Your task to perform on an android device: visit the assistant section in the google photos Image 0: 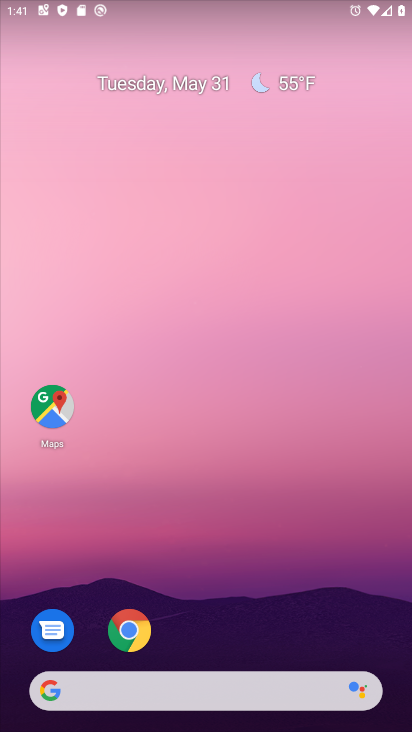
Step 0: drag from (210, 329) to (233, 163)
Your task to perform on an android device: visit the assistant section in the google photos Image 1: 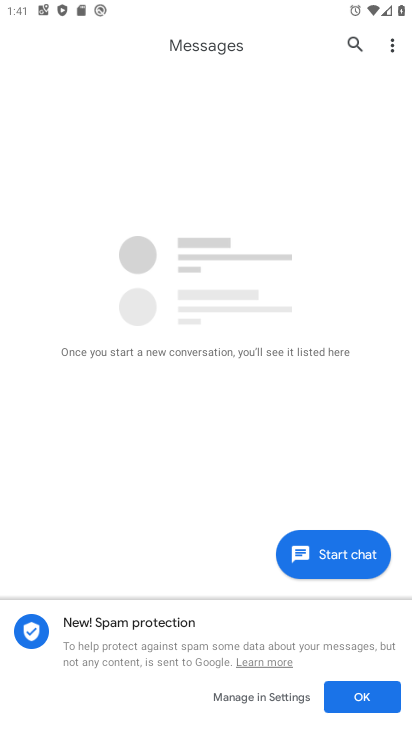
Step 1: press home button
Your task to perform on an android device: visit the assistant section in the google photos Image 2: 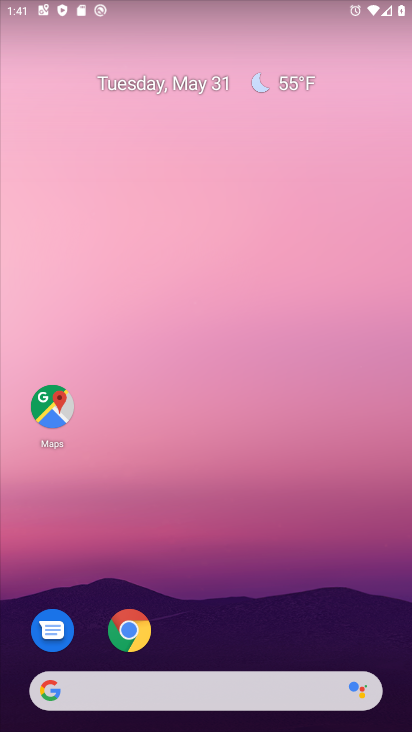
Step 2: drag from (189, 671) to (250, 234)
Your task to perform on an android device: visit the assistant section in the google photos Image 3: 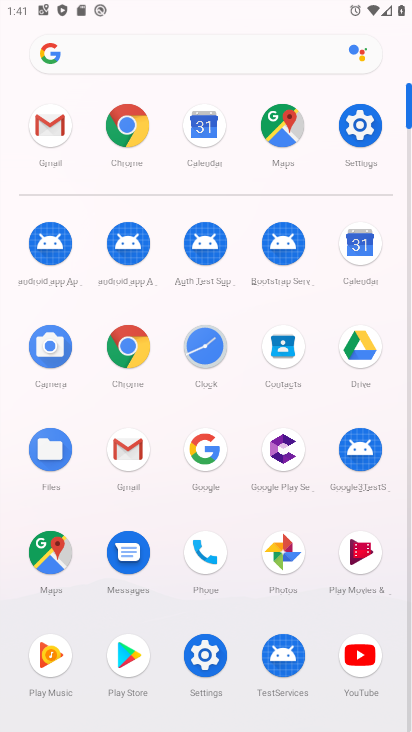
Step 3: click (287, 553)
Your task to perform on an android device: visit the assistant section in the google photos Image 4: 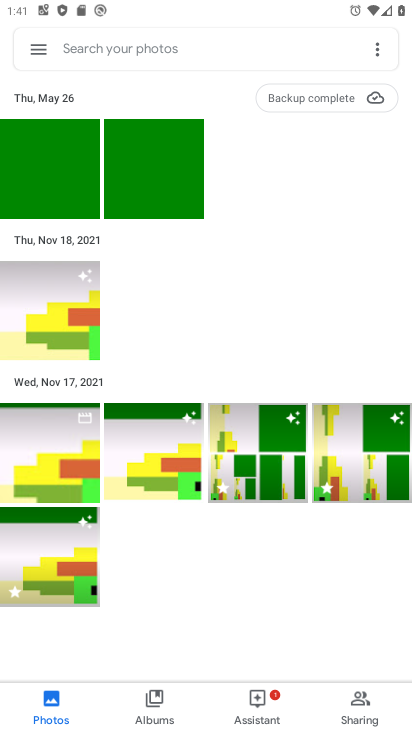
Step 4: click (40, 45)
Your task to perform on an android device: visit the assistant section in the google photos Image 5: 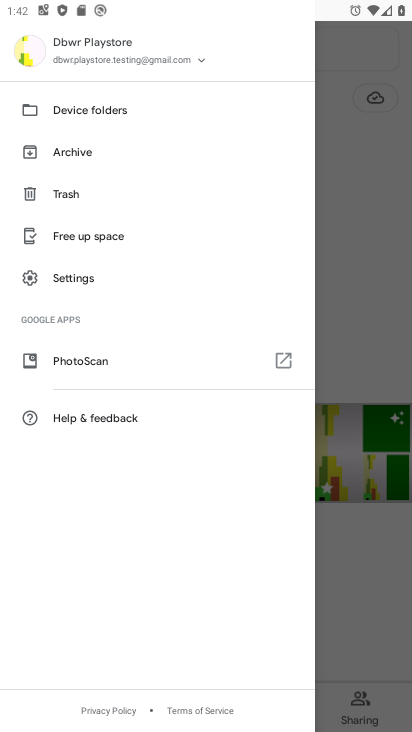
Step 5: click (348, 273)
Your task to perform on an android device: visit the assistant section in the google photos Image 6: 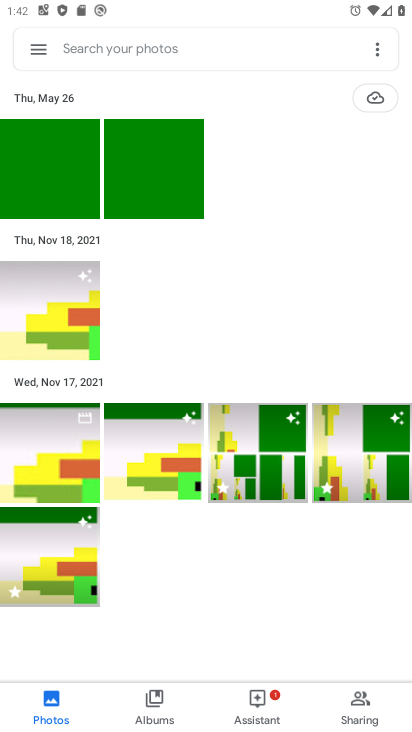
Step 6: click (265, 710)
Your task to perform on an android device: visit the assistant section in the google photos Image 7: 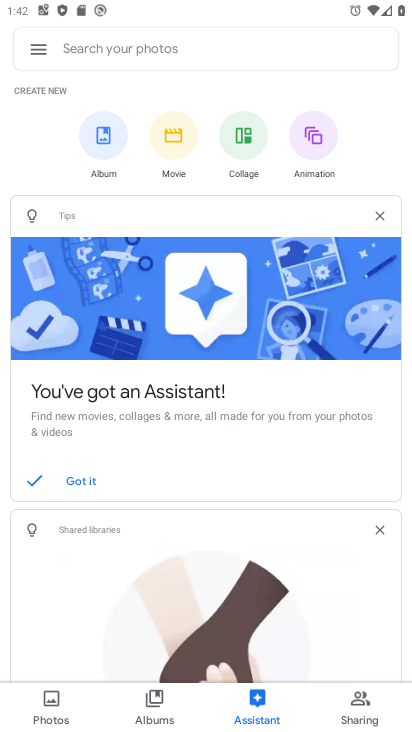
Step 7: task complete